Your task to perform on an android device: Show me productivity apps on the Play Store Image 0: 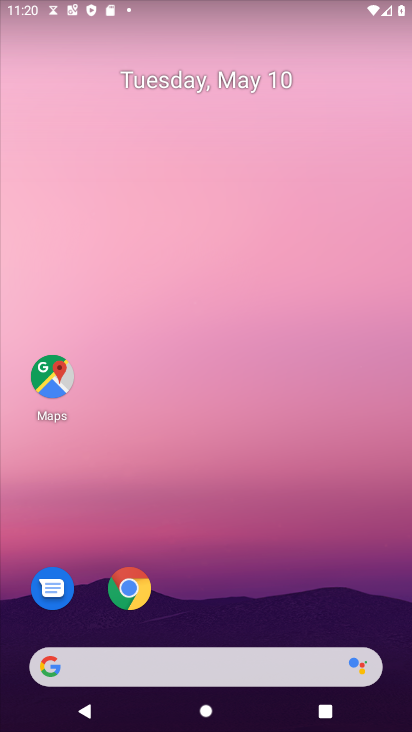
Step 0: drag from (322, 575) to (151, 116)
Your task to perform on an android device: Show me productivity apps on the Play Store Image 1: 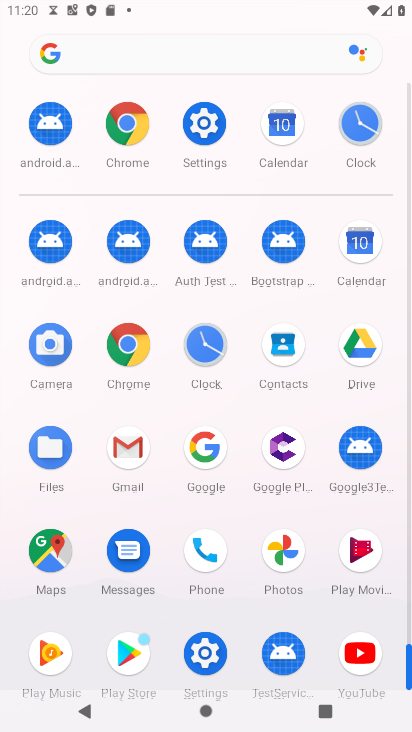
Step 1: click (118, 657)
Your task to perform on an android device: Show me productivity apps on the Play Store Image 2: 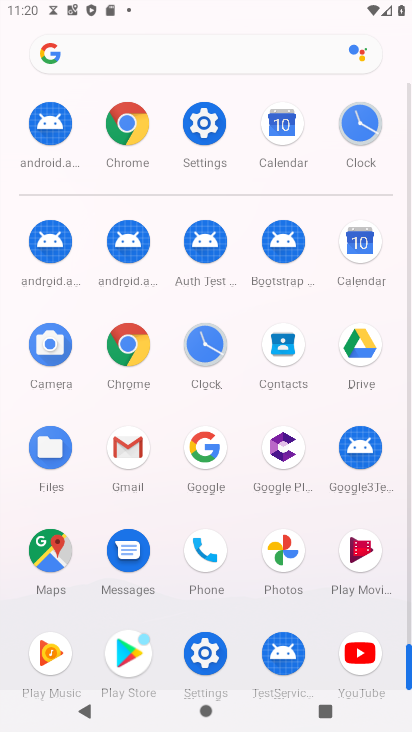
Step 2: click (118, 654)
Your task to perform on an android device: Show me productivity apps on the Play Store Image 3: 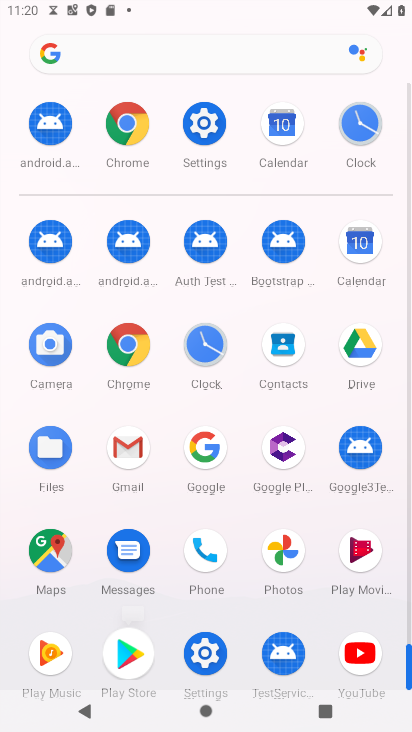
Step 3: click (119, 654)
Your task to perform on an android device: Show me productivity apps on the Play Store Image 4: 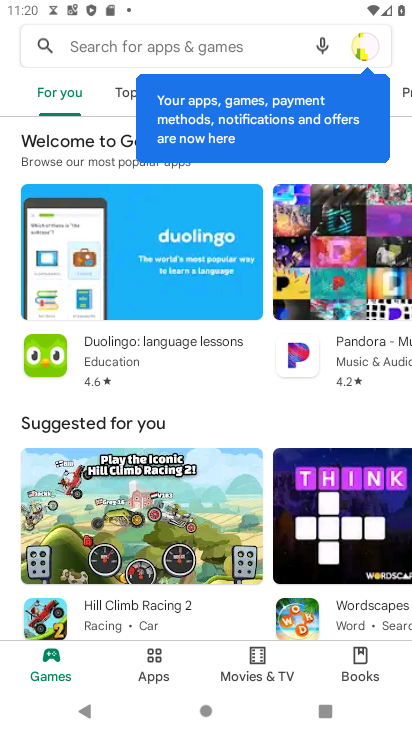
Step 4: click (91, 44)
Your task to perform on an android device: Show me productivity apps on the Play Store Image 5: 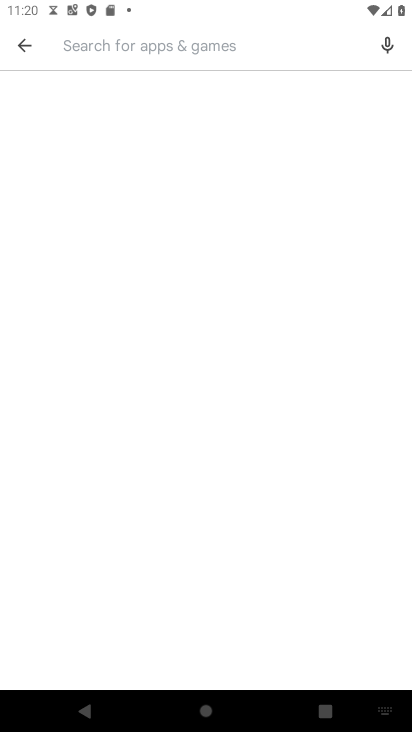
Step 5: click (149, 39)
Your task to perform on an android device: Show me productivity apps on the Play Store Image 6: 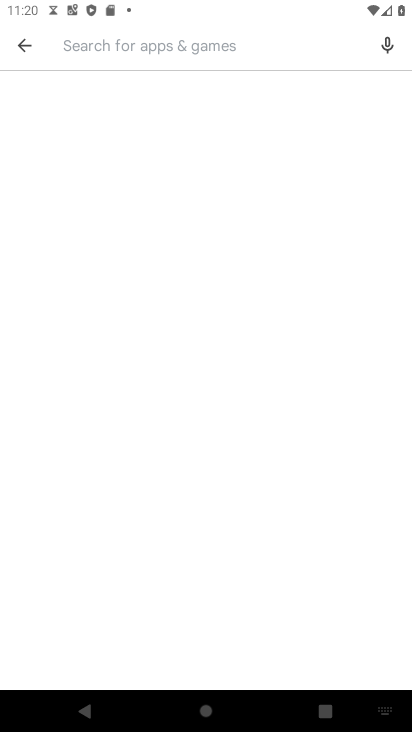
Step 6: type "productivity app"
Your task to perform on an android device: Show me productivity apps on the Play Store Image 7: 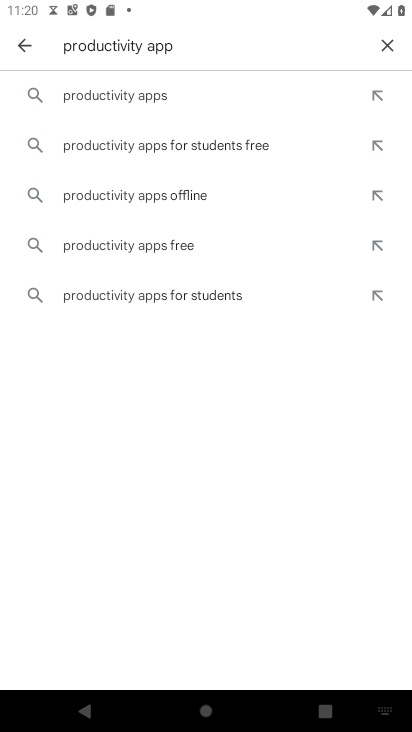
Step 7: click (136, 96)
Your task to perform on an android device: Show me productivity apps on the Play Store Image 8: 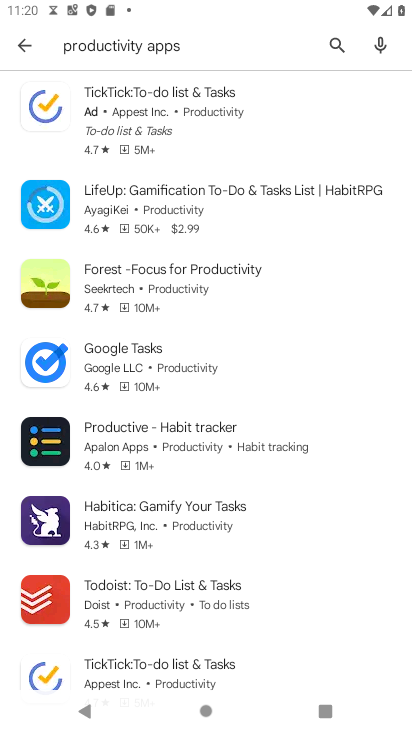
Step 8: drag from (155, 239) to (115, 94)
Your task to perform on an android device: Show me productivity apps on the Play Store Image 9: 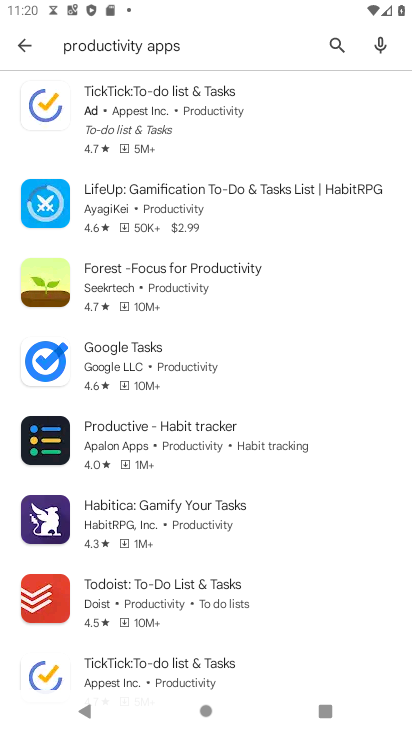
Step 9: drag from (136, 411) to (143, 189)
Your task to perform on an android device: Show me productivity apps on the Play Store Image 10: 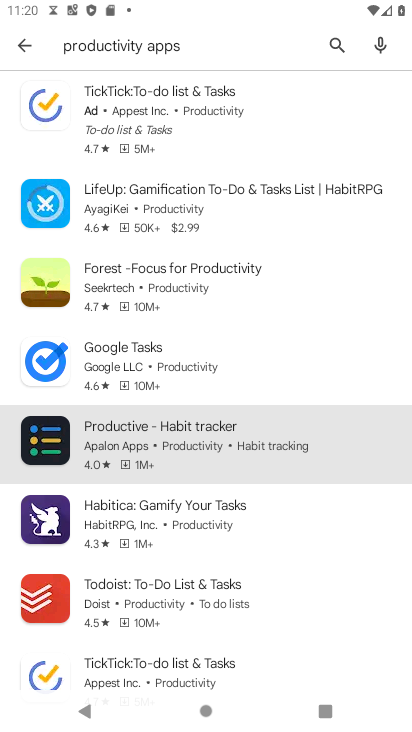
Step 10: drag from (146, 453) to (133, 66)
Your task to perform on an android device: Show me productivity apps on the Play Store Image 11: 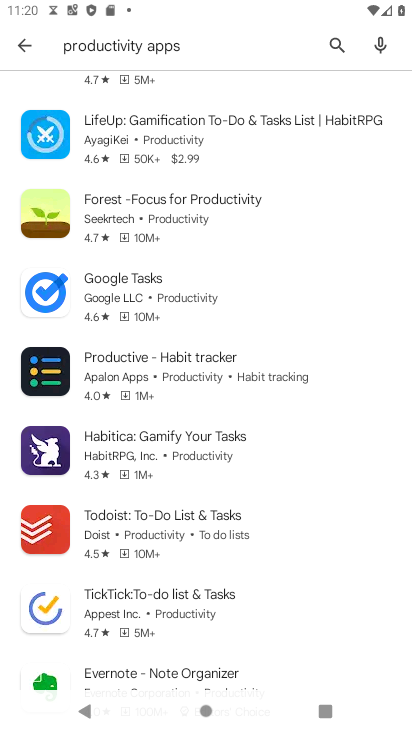
Step 11: click (125, 48)
Your task to perform on an android device: Show me productivity apps on the Play Store Image 12: 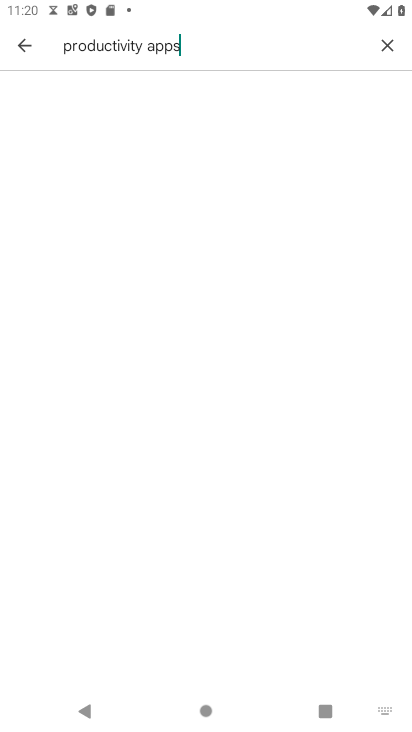
Step 12: task complete